Your task to perform on an android device: turn notification dots on Image 0: 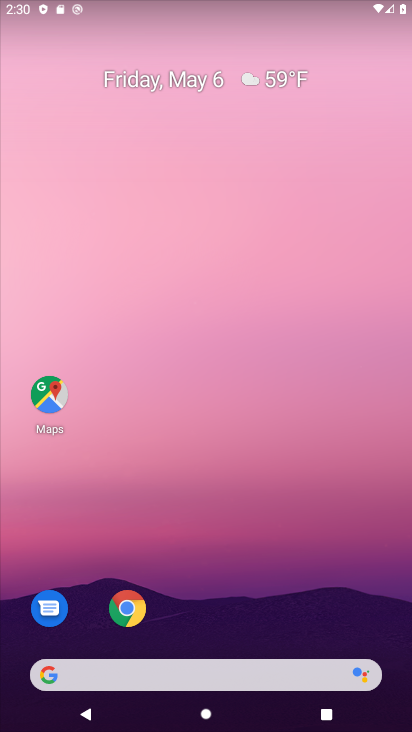
Step 0: drag from (211, 661) to (341, 175)
Your task to perform on an android device: turn notification dots on Image 1: 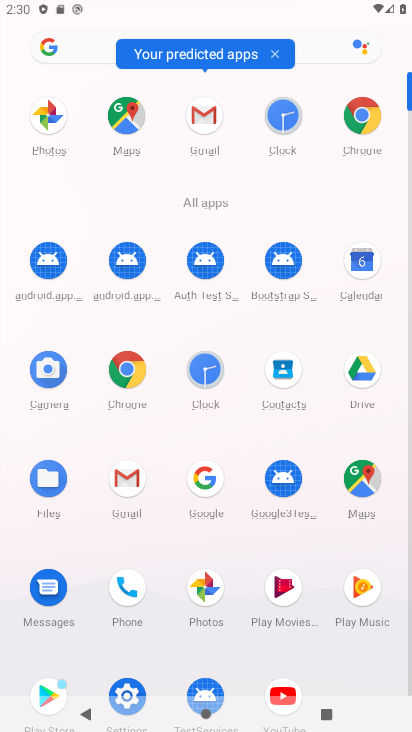
Step 1: click (129, 680)
Your task to perform on an android device: turn notification dots on Image 2: 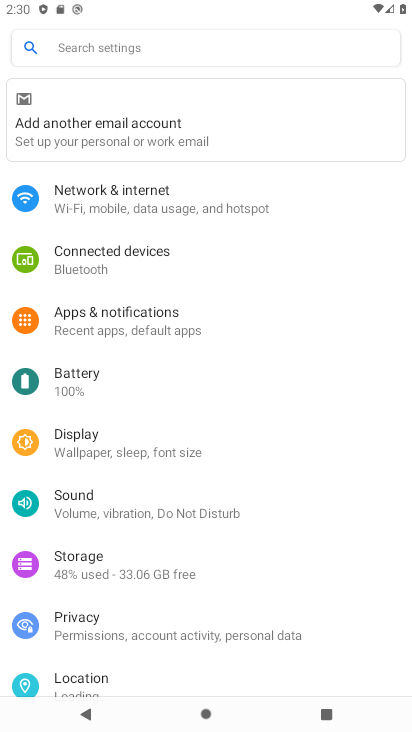
Step 2: click (141, 321)
Your task to perform on an android device: turn notification dots on Image 3: 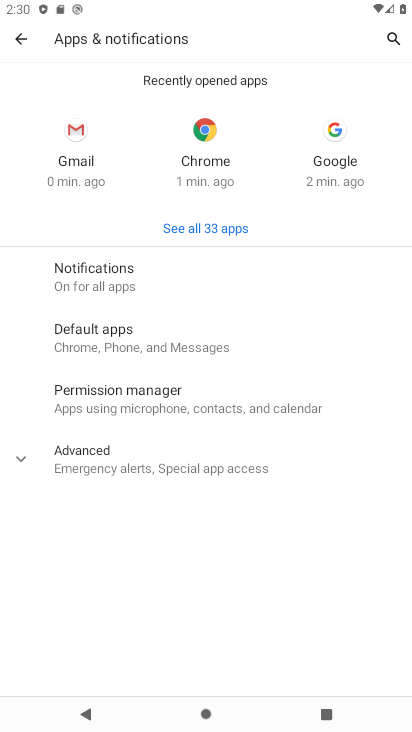
Step 3: click (153, 277)
Your task to perform on an android device: turn notification dots on Image 4: 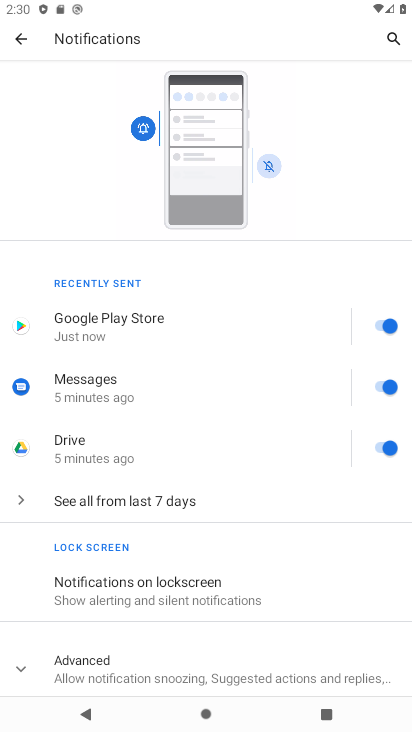
Step 4: drag from (99, 603) to (336, 76)
Your task to perform on an android device: turn notification dots on Image 5: 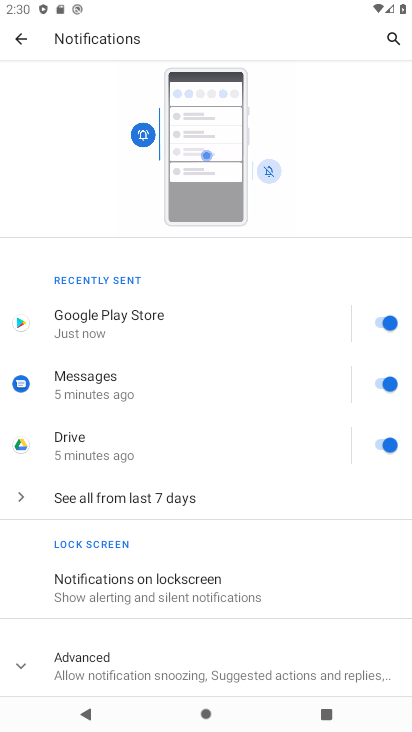
Step 5: click (71, 679)
Your task to perform on an android device: turn notification dots on Image 6: 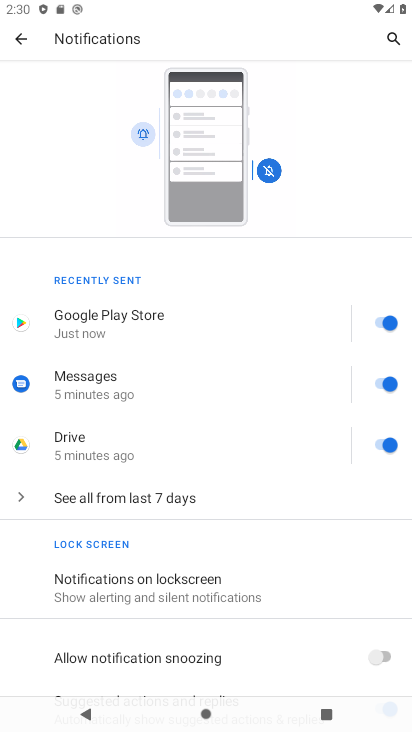
Step 6: task complete